Your task to perform on an android device: Go to accessibility settings Image 0: 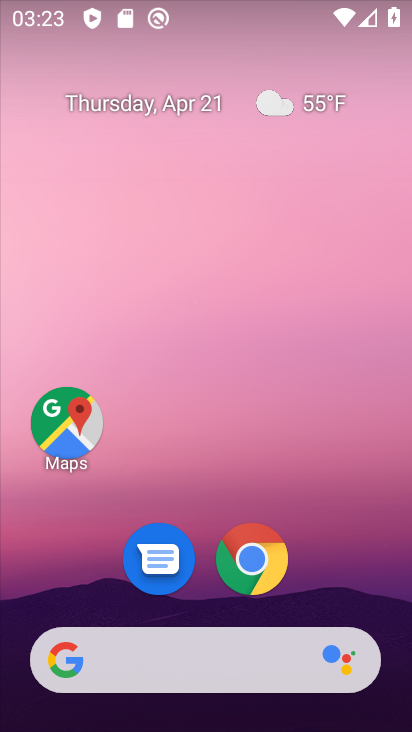
Step 0: drag from (351, 571) to (281, 115)
Your task to perform on an android device: Go to accessibility settings Image 1: 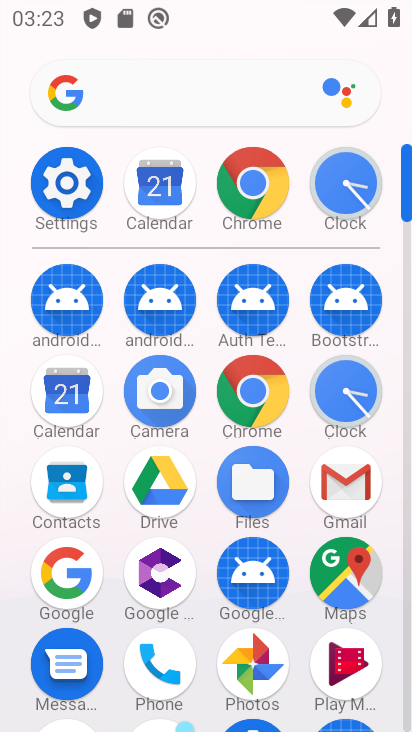
Step 1: click (62, 212)
Your task to perform on an android device: Go to accessibility settings Image 2: 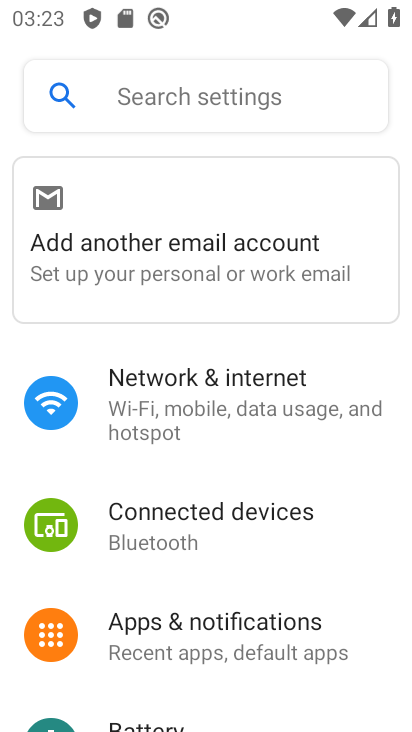
Step 2: drag from (172, 668) to (148, 187)
Your task to perform on an android device: Go to accessibility settings Image 3: 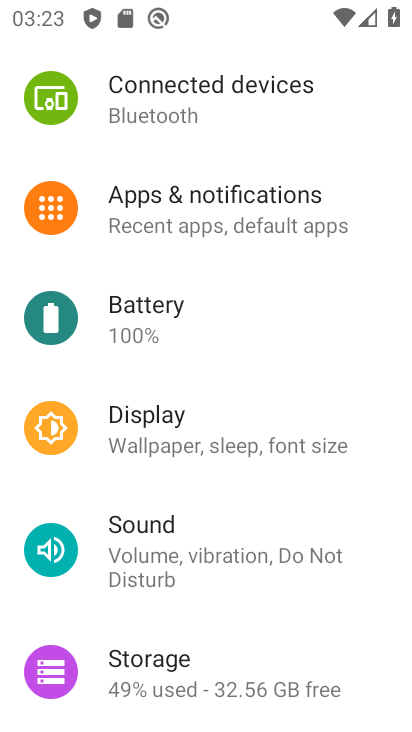
Step 3: drag from (207, 681) to (119, 279)
Your task to perform on an android device: Go to accessibility settings Image 4: 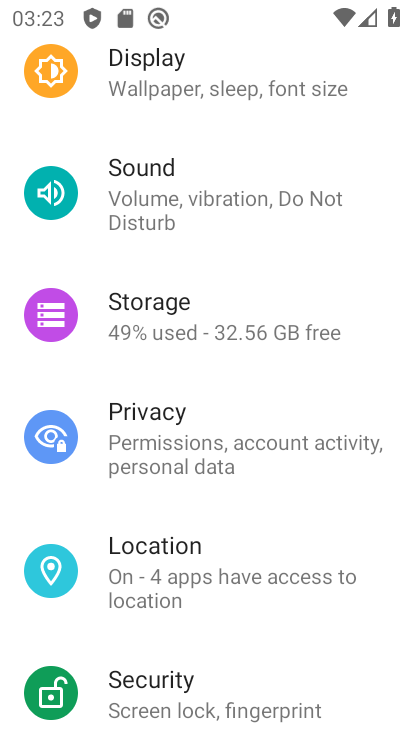
Step 4: drag from (206, 712) to (202, 132)
Your task to perform on an android device: Go to accessibility settings Image 5: 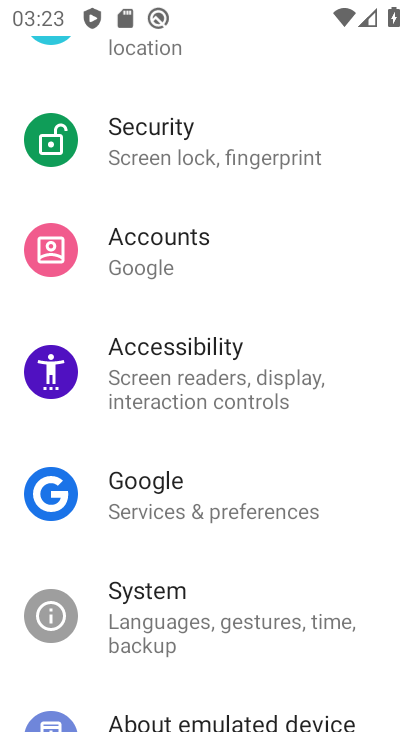
Step 5: click (174, 388)
Your task to perform on an android device: Go to accessibility settings Image 6: 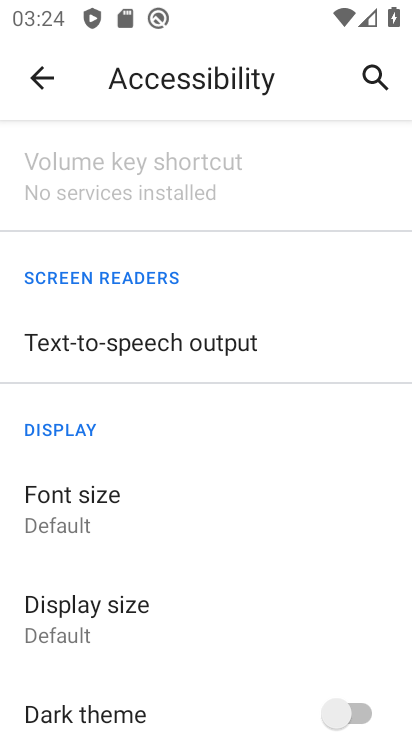
Step 6: task complete